Your task to perform on an android device: toggle location history Image 0: 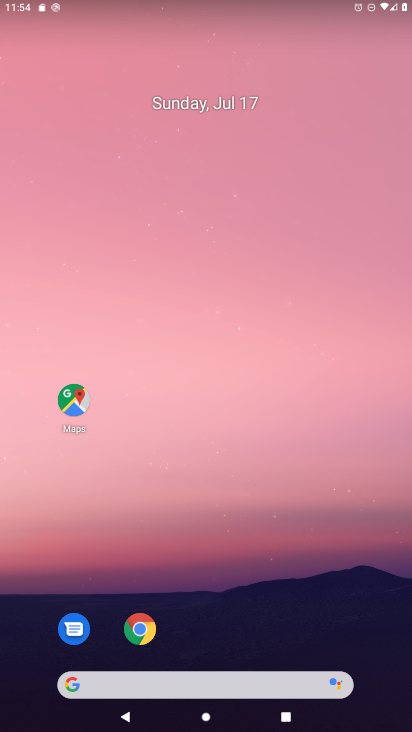
Step 0: drag from (197, 686) to (377, 78)
Your task to perform on an android device: toggle location history Image 1: 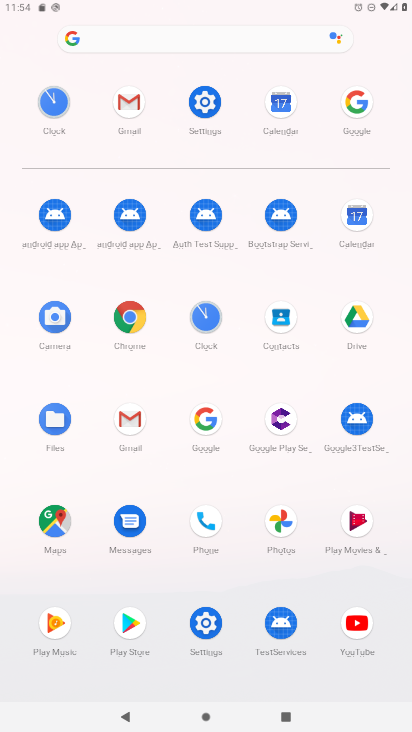
Step 1: click (206, 102)
Your task to perform on an android device: toggle location history Image 2: 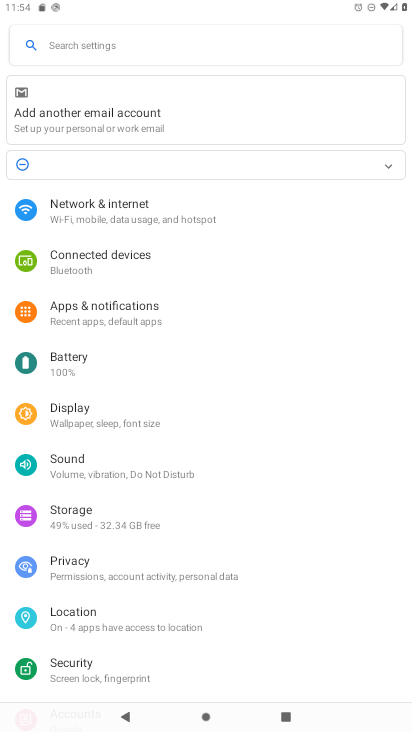
Step 2: click (76, 619)
Your task to perform on an android device: toggle location history Image 3: 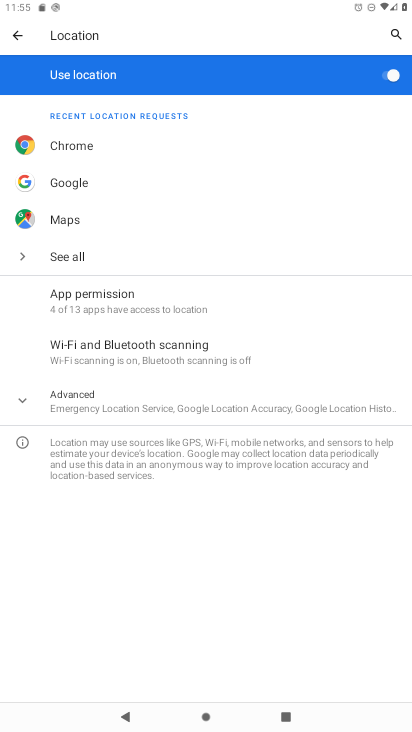
Step 3: click (100, 411)
Your task to perform on an android device: toggle location history Image 4: 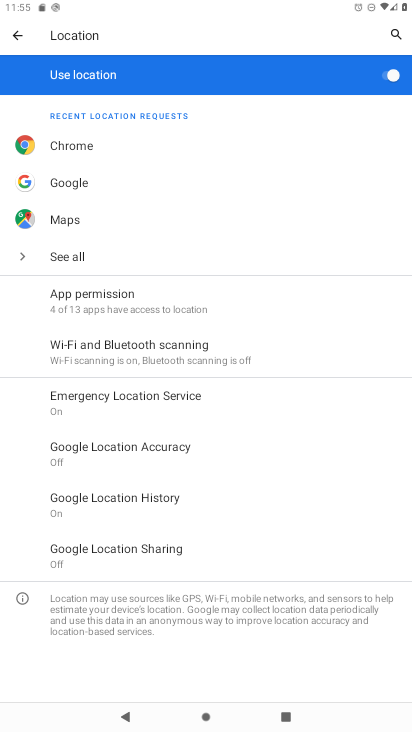
Step 4: click (115, 500)
Your task to perform on an android device: toggle location history Image 5: 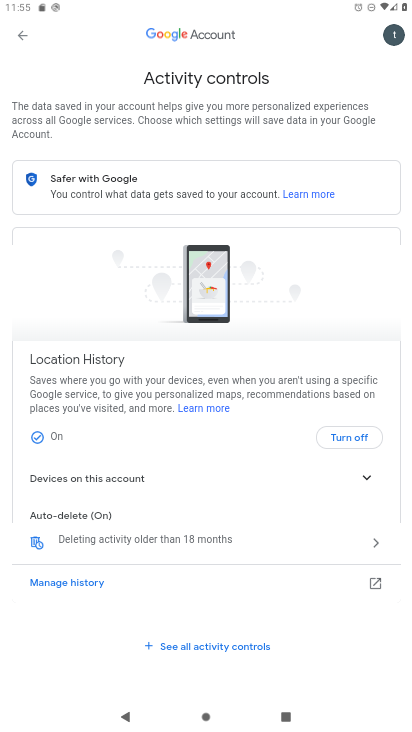
Step 5: click (362, 438)
Your task to perform on an android device: toggle location history Image 6: 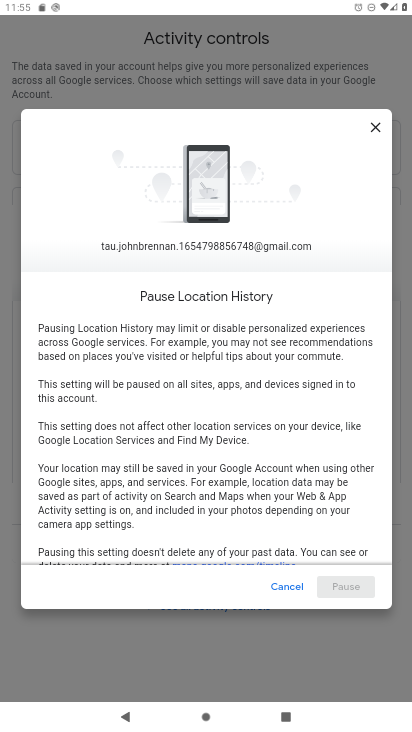
Step 6: drag from (299, 529) to (346, 325)
Your task to perform on an android device: toggle location history Image 7: 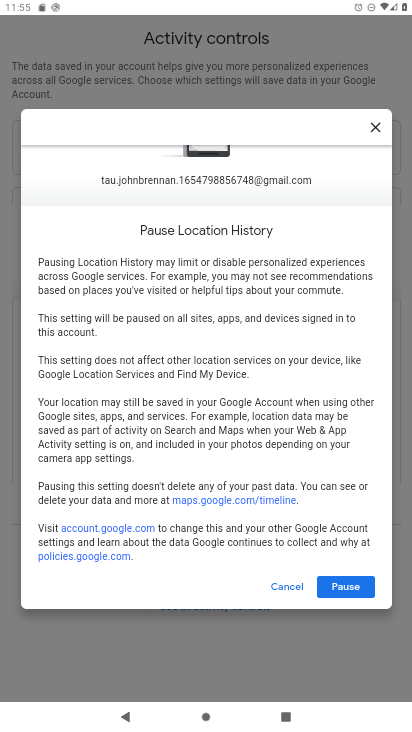
Step 7: click (336, 588)
Your task to perform on an android device: toggle location history Image 8: 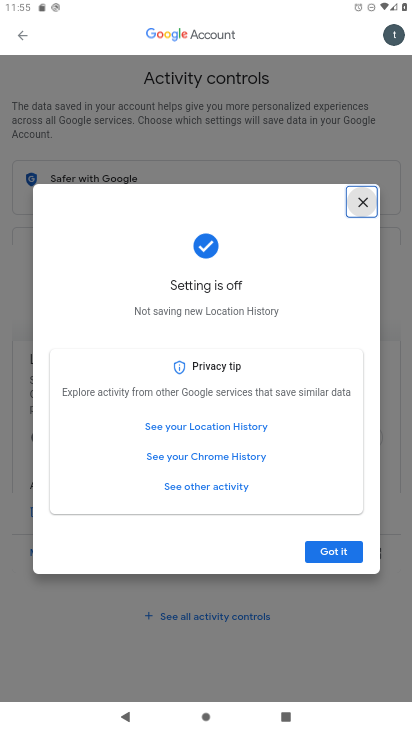
Step 8: click (328, 547)
Your task to perform on an android device: toggle location history Image 9: 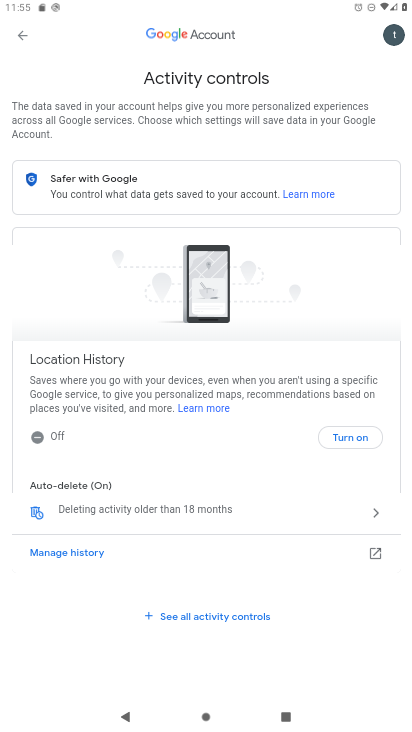
Step 9: task complete